Your task to perform on an android device: Open Google Maps and go to "Timeline" Image 0: 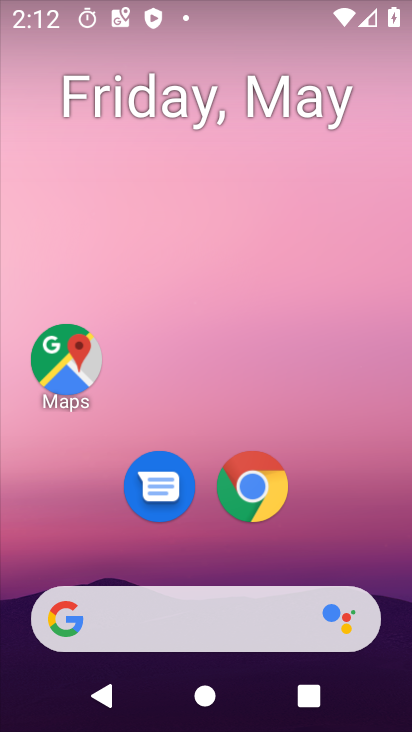
Step 0: click (68, 356)
Your task to perform on an android device: Open Google Maps and go to "Timeline" Image 1: 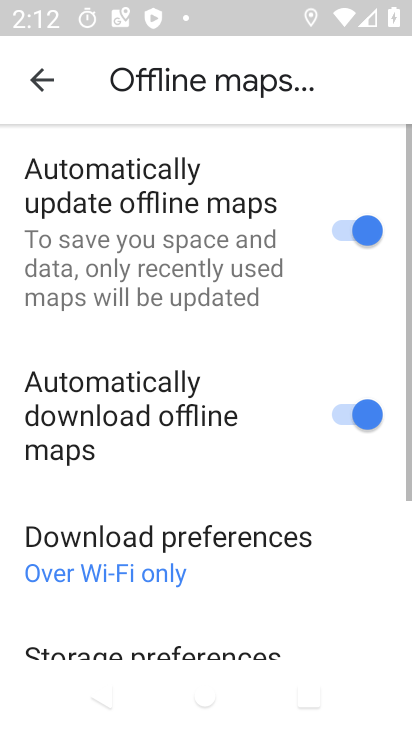
Step 1: click (36, 85)
Your task to perform on an android device: Open Google Maps and go to "Timeline" Image 2: 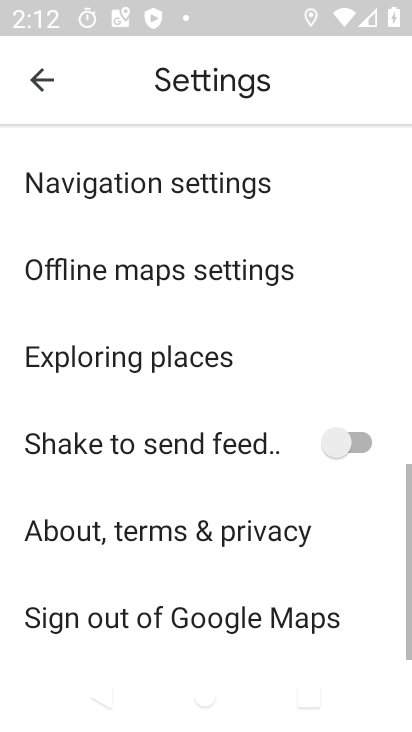
Step 2: click (36, 89)
Your task to perform on an android device: Open Google Maps and go to "Timeline" Image 3: 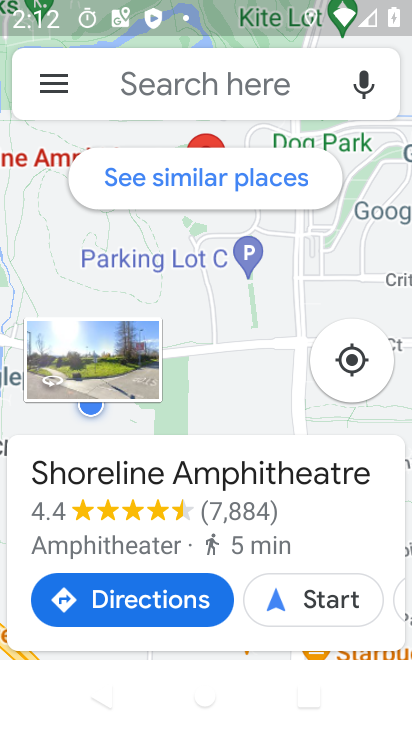
Step 3: click (45, 84)
Your task to perform on an android device: Open Google Maps and go to "Timeline" Image 4: 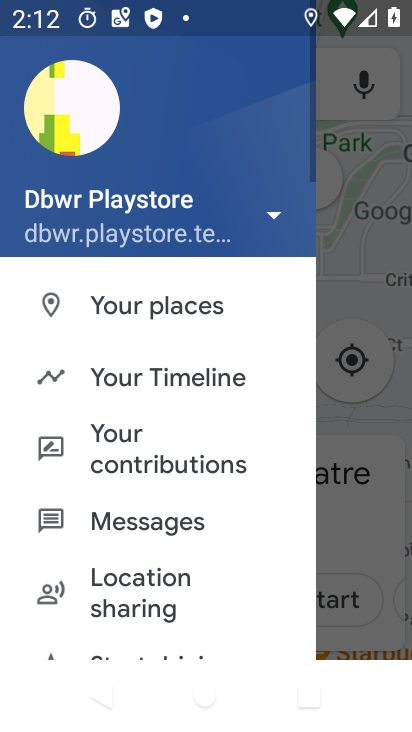
Step 4: click (167, 372)
Your task to perform on an android device: Open Google Maps and go to "Timeline" Image 5: 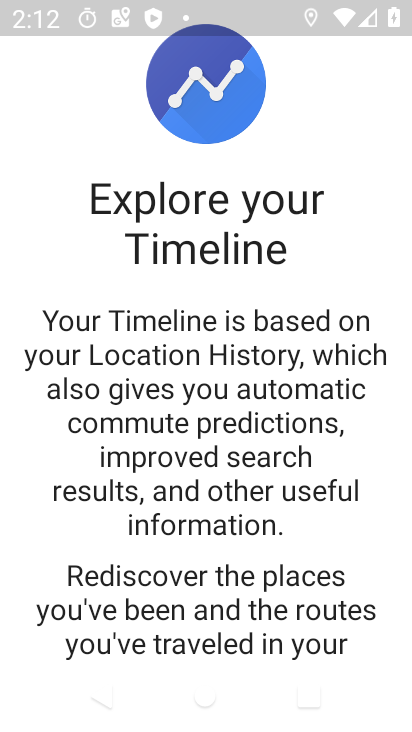
Step 5: drag from (291, 645) to (242, 256)
Your task to perform on an android device: Open Google Maps and go to "Timeline" Image 6: 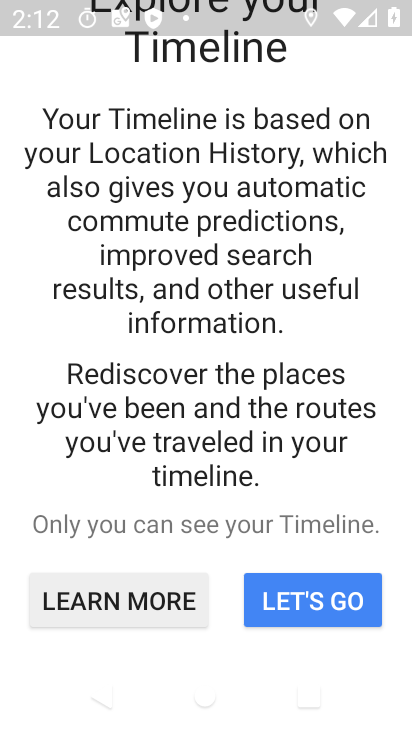
Step 6: click (303, 622)
Your task to perform on an android device: Open Google Maps and go to "Timeline" Image 7: 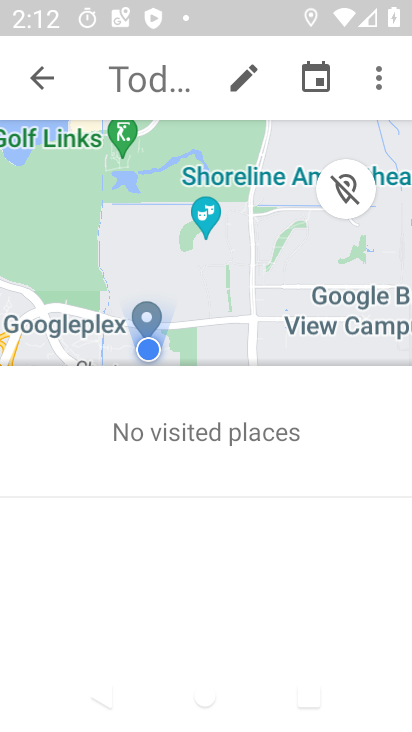
Step 7: task complete